Your task to perform on an android device: stop showing notifications on the lock screen Image 0: 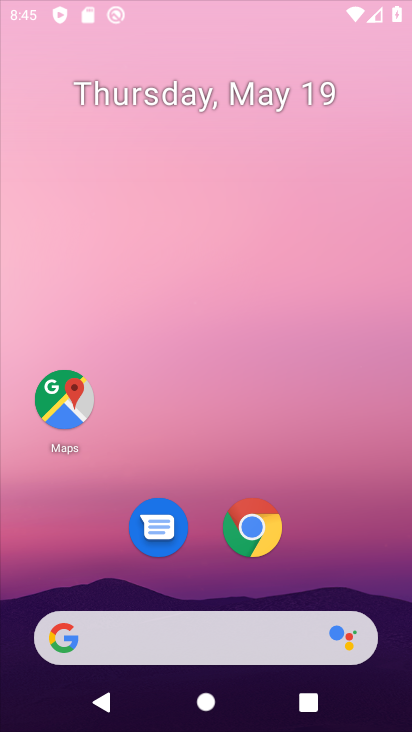
Step 0: click (217, 96)
Your task to perform on an android device: stop showing notifications on the lock screen Image 1: 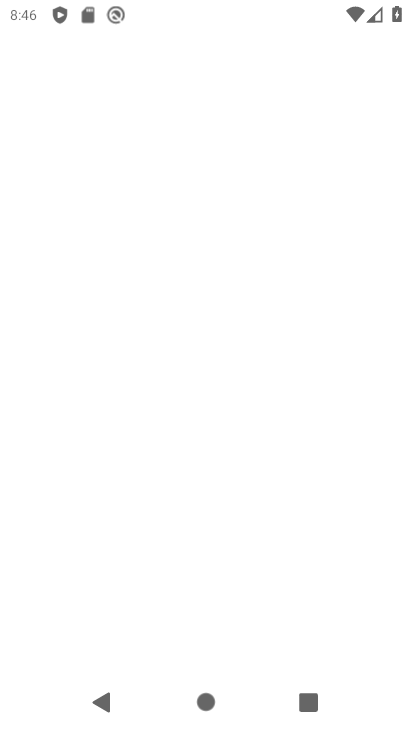
Step 1: drag from (221, 564) to (220, 226)
Your task to perform on an android device: stop showing notifications on the lock screen Image 2: 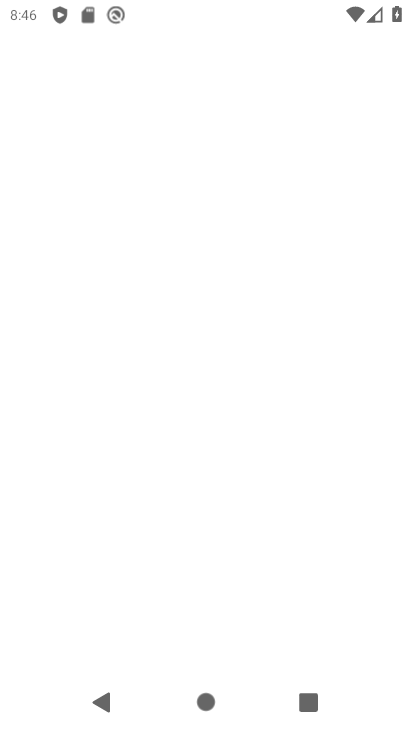
Step 2: drag from (238, 640) to (235, 310)
Your task to perform on an android device: stop showing notifications on the lock screen Image 3: 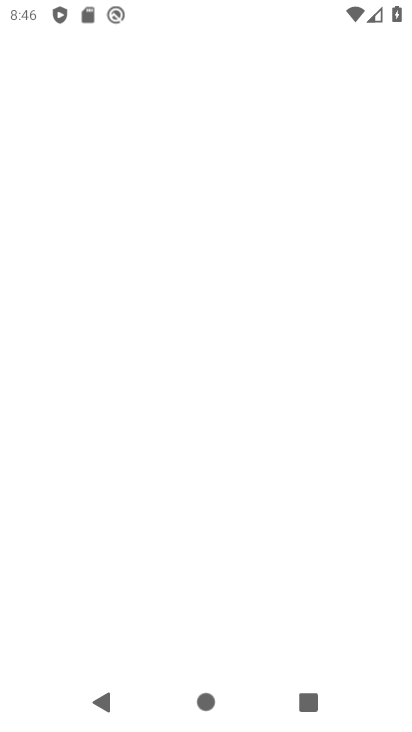
Step 3: press back button
Your task to perform on an android device: stop showing notifications on the lock screen Image 4: 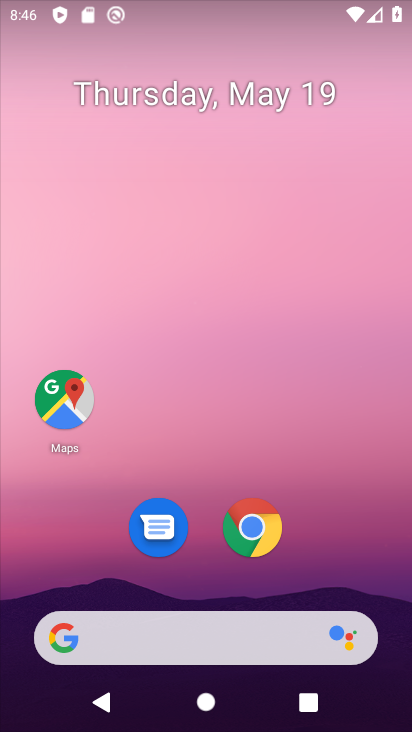
Step 4: drag from (205, 556) to (228, 145)
Your task to perform on an android device: stop showing notifications on the lock screen Image 5: 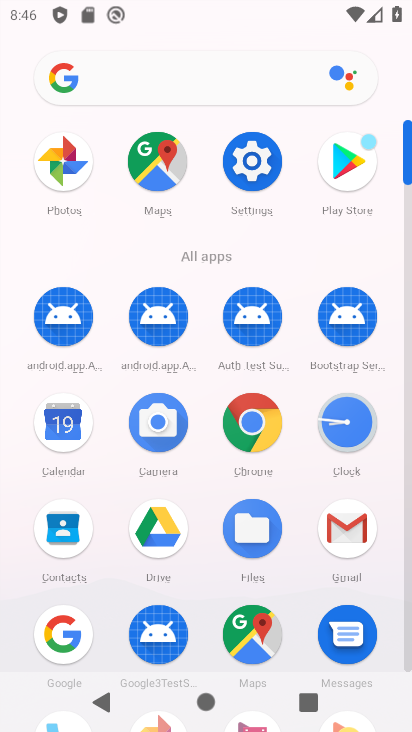
Step 5: drag from (192, 592) to (197, 272)
Your task to perform on an android device: stop showing notifications on the lock screen Image 6: 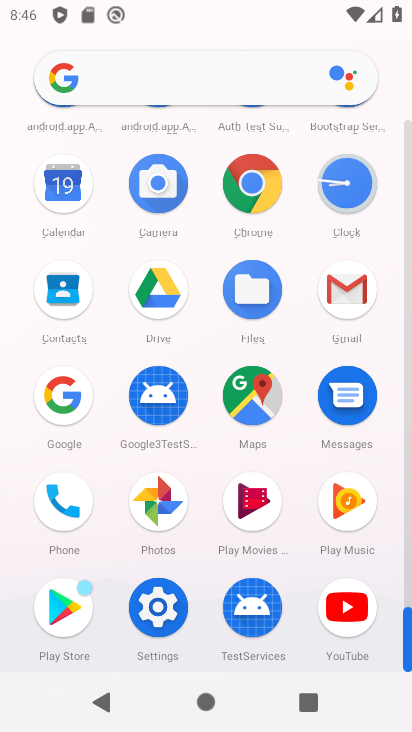
Step 6: click (157, 613)
Your task to perform on an android device: stop showing notifications on the lock screen Image 7: 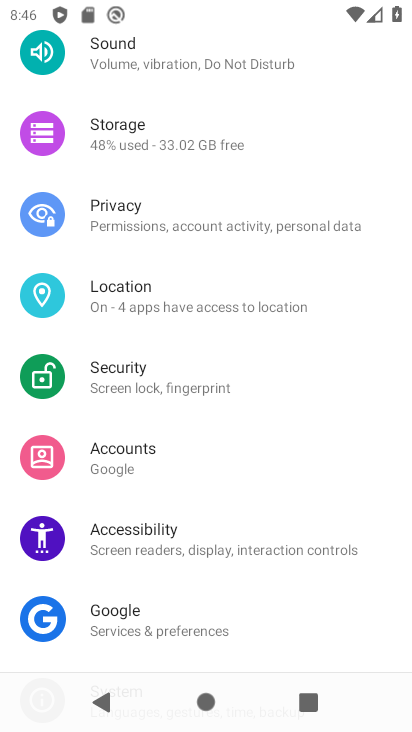
Step 7: drag from (189, 136) to (242, 575)
Your task to perform on an android device: stop showing notifications on the lock screen Image 8: 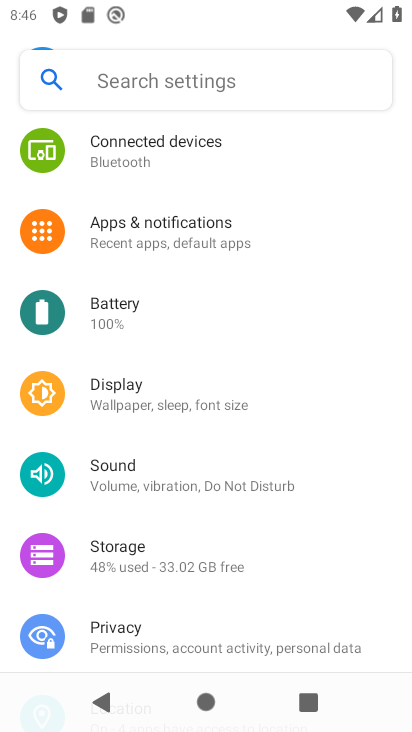
Step 8: click (137, 229)
Your task to perform on an android device: stop showing notifications on the lock screen Image 9: 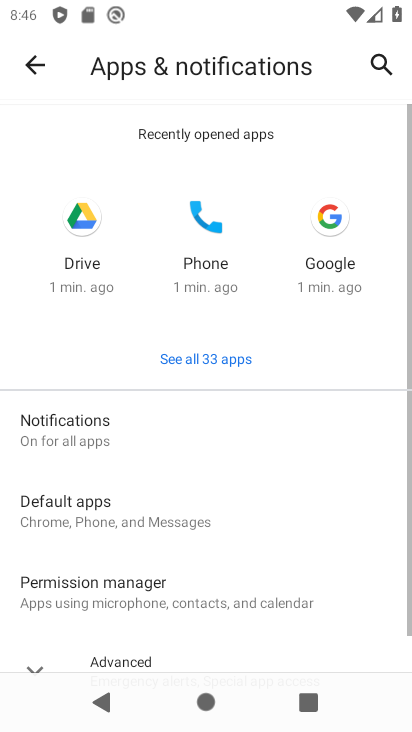
Step 9: click (162, 421)
Your task to perform on an android device: stop showing notifications on the lock screen Image 10: 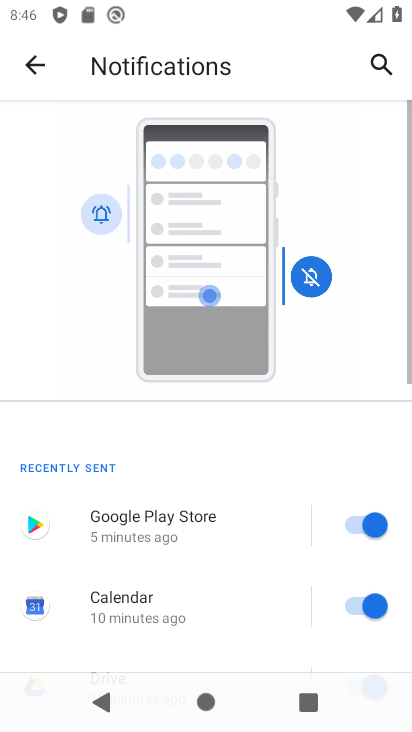
Step 10: drag from (258, 543) to (351, 60)
Your task to perform on an android device: stop showing notifications on the lock screen Image 11: 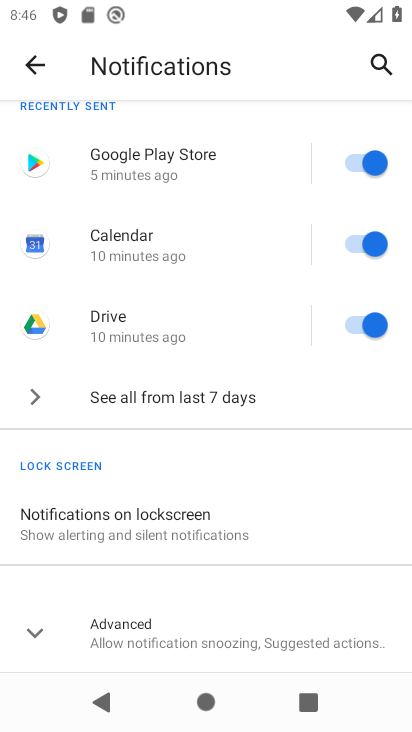
Step 11: click (228, 521)
Your task to perform on an android device: stop showing notifications on the lock screen Image 12: 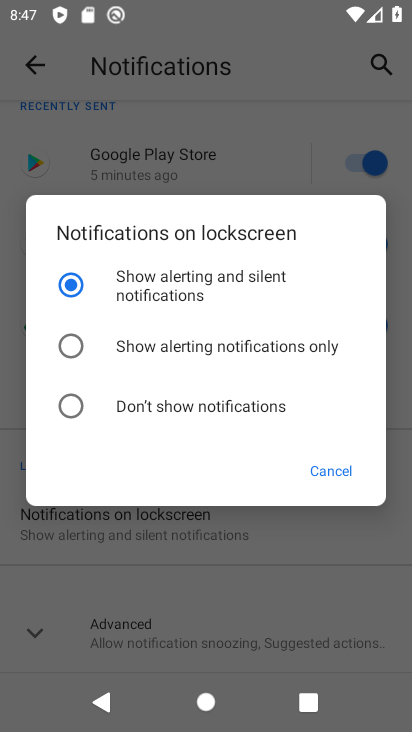
Step 12: click (147, 353)
Your task to perform on an android device: stop showing notifications on the lock screen Image 13: 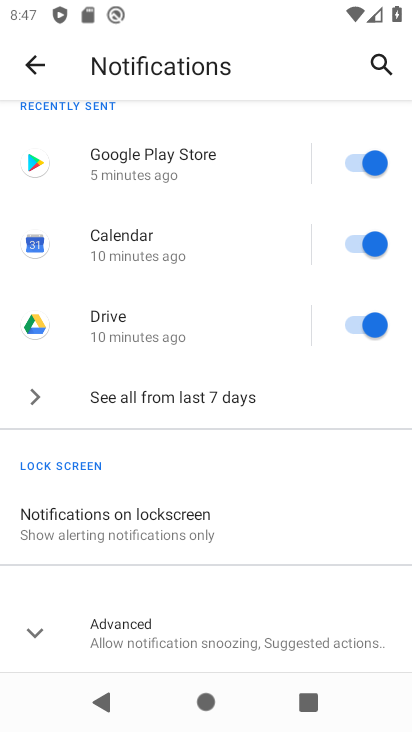
Step 13: click (114, 517)
Your task to perform on an android device: stop showing notifications on the lock screen Image 14: 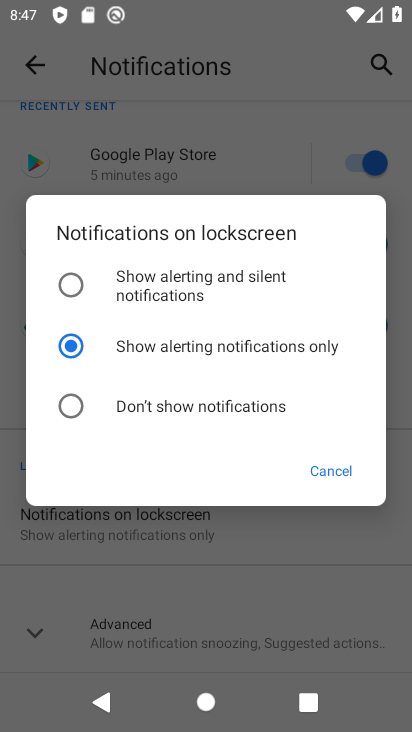
Step 14: click (89, 408)
Your task to perform on an android device: stop showing notifications on the lock screen Image 15: 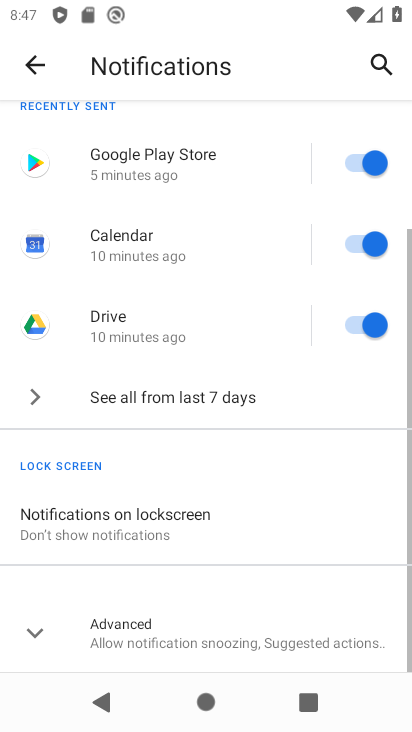
Step 15: task complete